Your task to perform on an android device: Open Google Image 0: 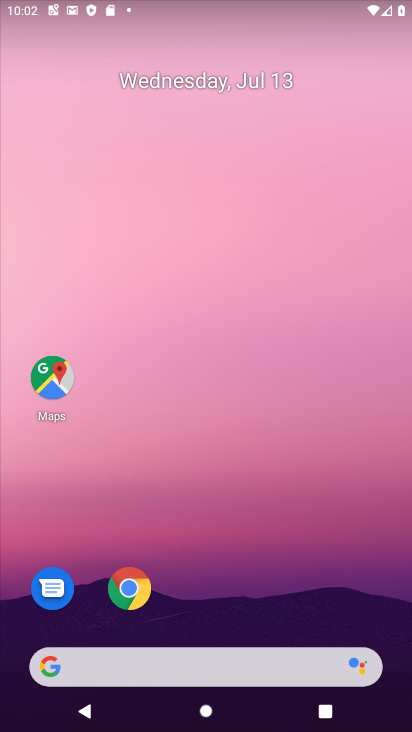
Step 0: drag from (220, 645) to (222, 136)
Your task to perform on an android device: Open Google Image 1: 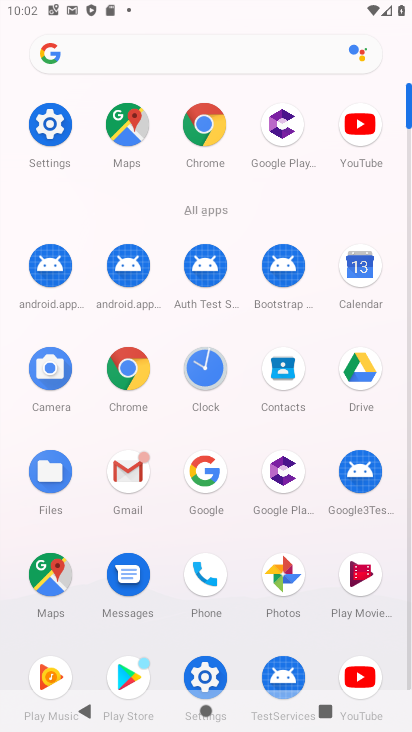
Step 1: click (189, 475)
Your task to perform on an android device: Open Google Image 2: 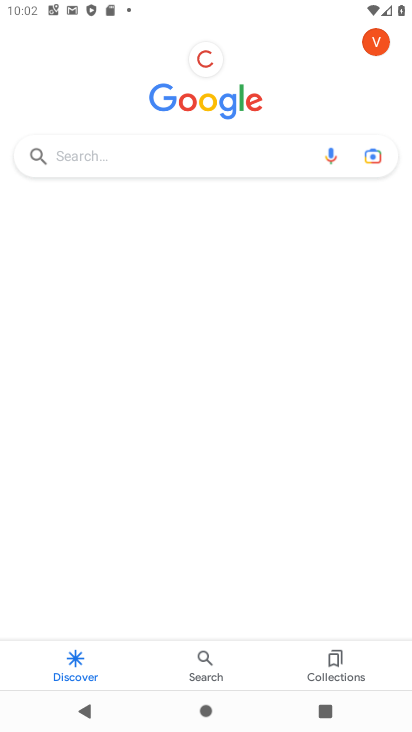
Step 2: task complete